Your task to perform on an android device: toggle pop-ups in chrome Image 0: 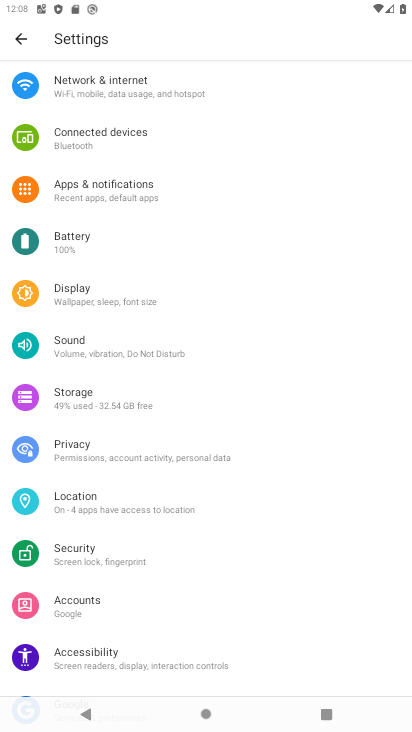
Step 0: press home button
Your task to perform on an android device: toggle pop-ups in chrome Image 1: 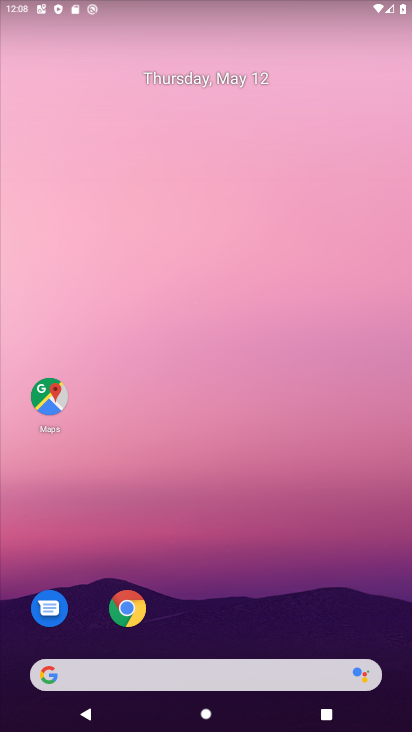
Step 1: click (129, 619)
Your task to perform on an android device: toggle pop-ups in chrome Image 2: 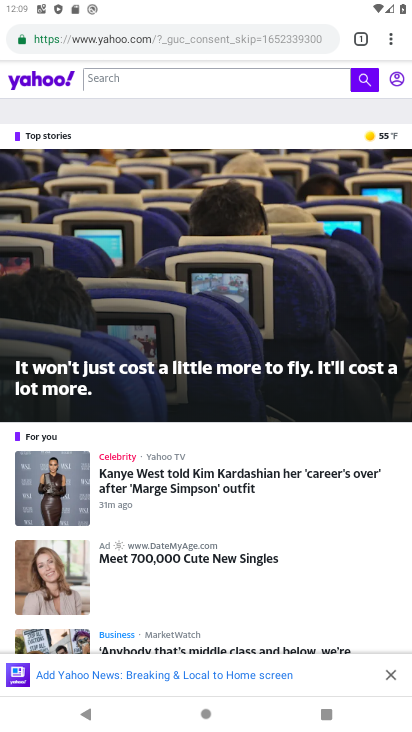
Step 2: click (389, 42)
Your task to perform on an android device: toggle pop-ups in chrome Image 3: 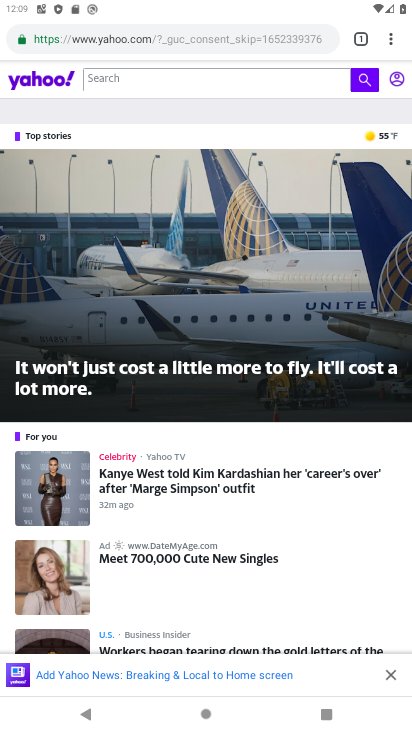
Step 3: click (390, 40)
Your task to perform on an android device: toggle pop-ups in chrome Image 4: 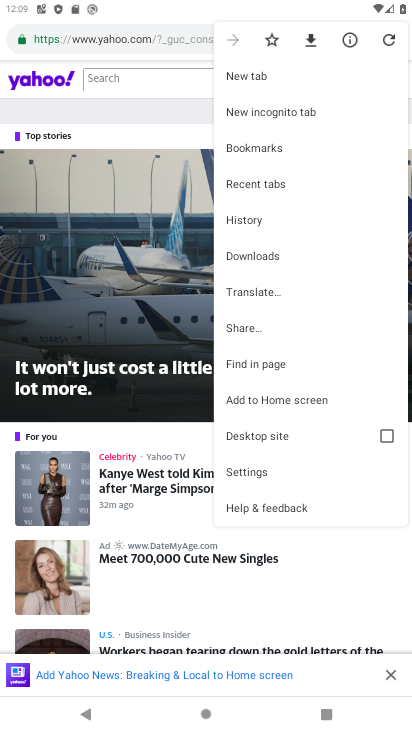
Step 4: click (238, 476)
Your task to perform on an android device: toggle pop-ups in chrome Image 5: 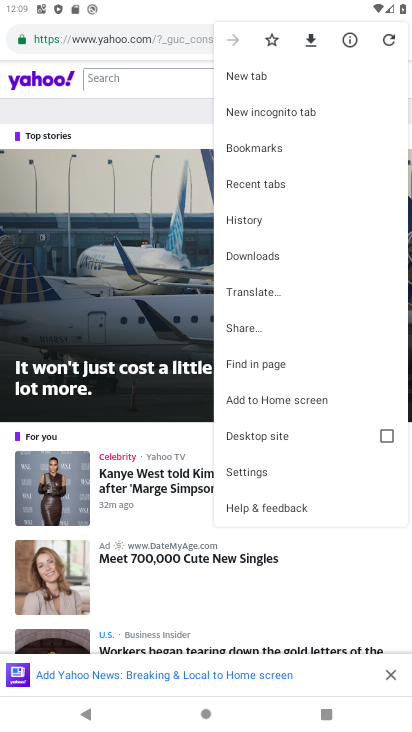
Step 5: click (245, 472)
Your task to perform on an android device: toggle pop-ups in chrome Image 6: 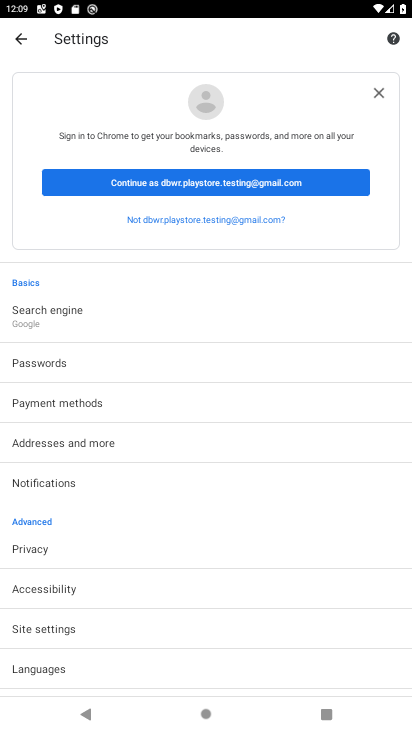
Step 6: click (53, 625)
Your task to perform on an android device: toggle pop-ups in chrome Image 7: 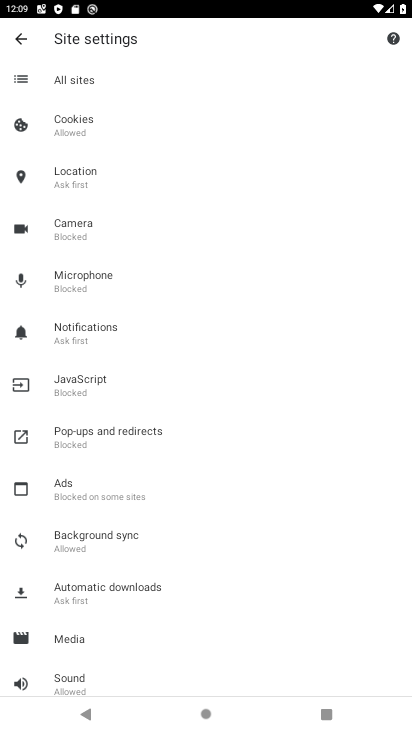
Step 7: click (84, 436)
Your task to perform on an android device: toggle pop-ups in chrome Image 8: 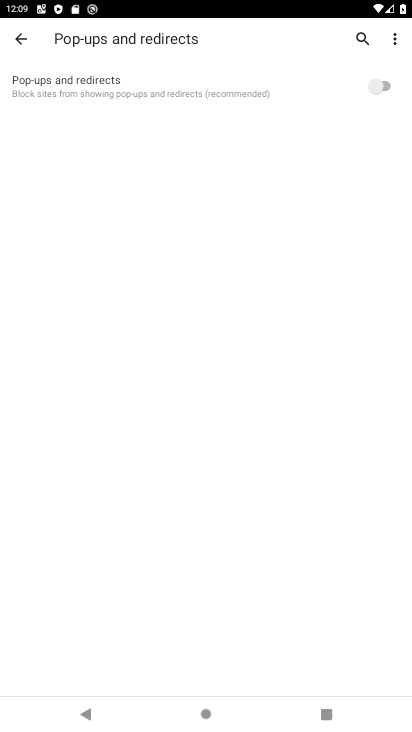
Step 8: click (378, 84)
Your task to perform on an android device: toggle pop-ups in chrome Image 9: 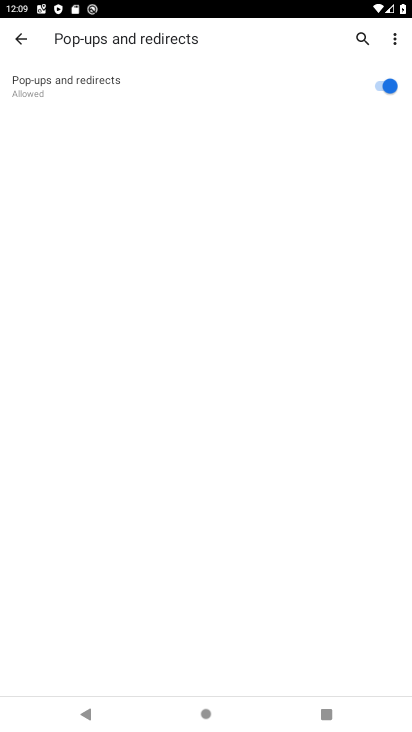
Step 9: task complete